Your task to perform on an android device: toggle wifi Image 0: 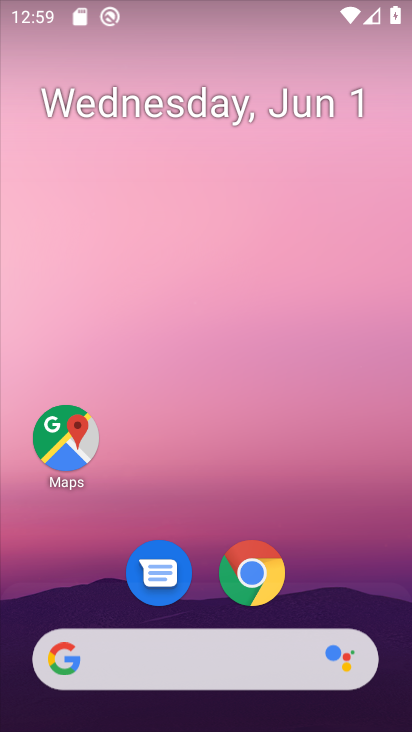
Step 0: drag from (152, 351) to (105, 125)
Your task to perform on an android device: toggle wifi Image 1: 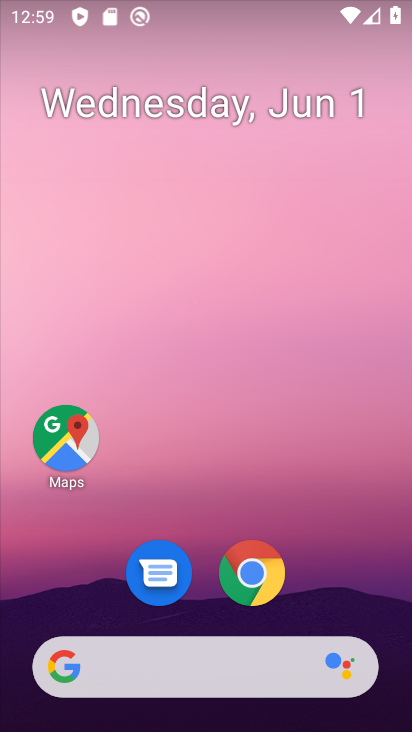
Step 1: drag from (214, 607) to (240, 99)
Your task to perform on an android device: toggle wifi Image 2: 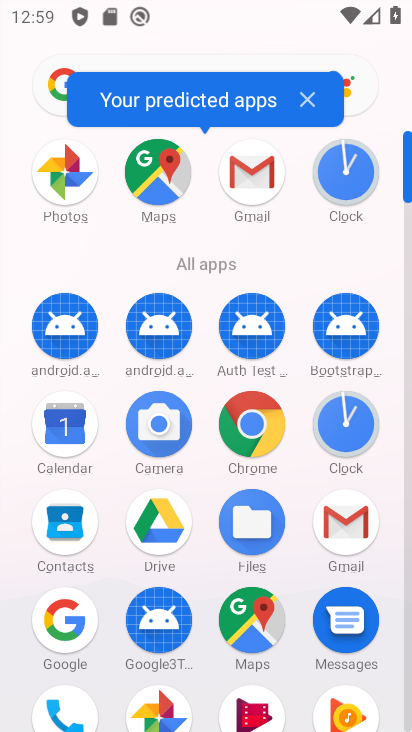
Step 2: drag from (211, 585) to (218, 188)
Your task to perform on an android device: toggle wifi Image 3: 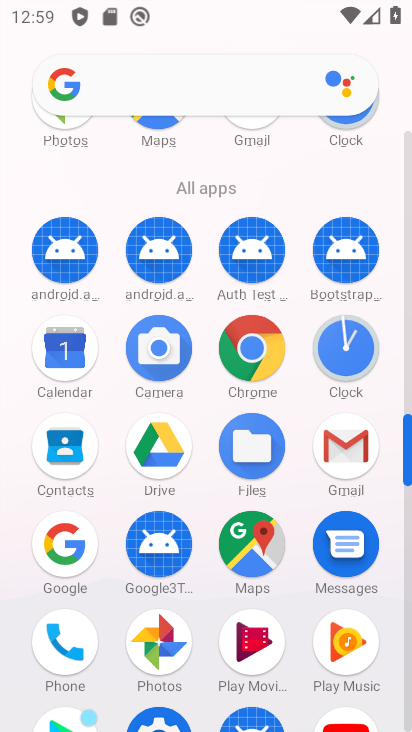
Step 3: click (166, 724)
Your task to perform on an android device: toggle wifi Image 4: 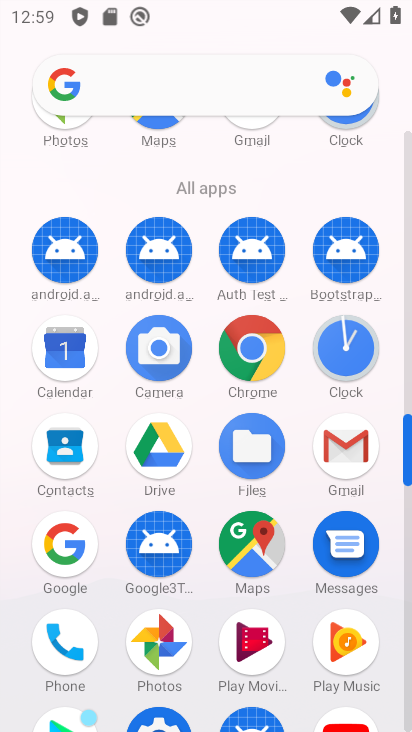
Step 4: click (166, 724)
Your task to perform on an android device: toggle wifi Image 5: 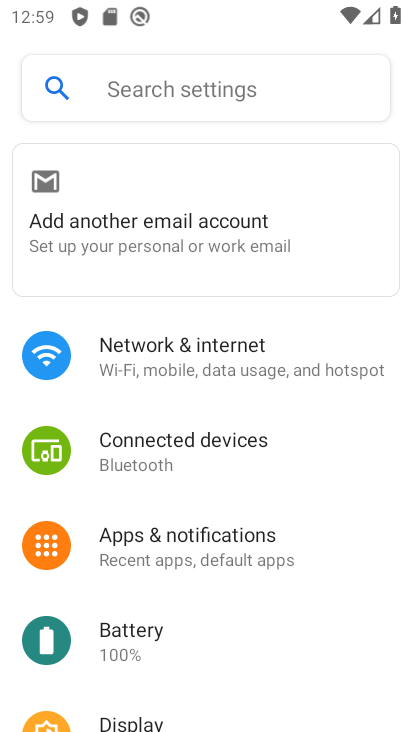
Step 5: click (151, 343)
Your task to perform on an android device: toggle wifi Image 6: 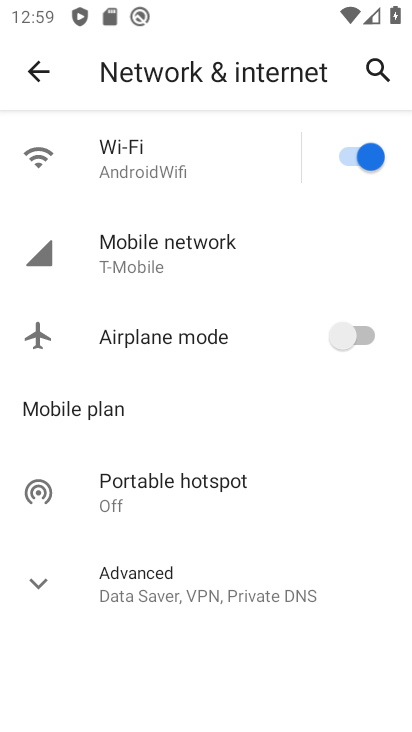
Step 6: click (149, 197)
Your task to perform on an android device: toggle wifi Image 7: 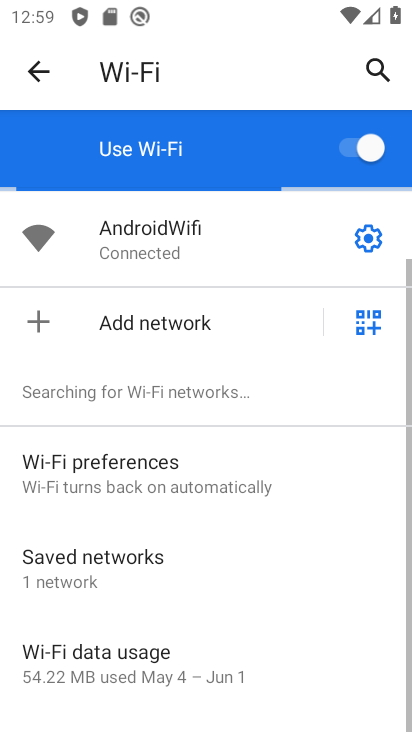
Step 7: click (347, 151)
Your task to perform on an android device: toggle wifi Image 8: 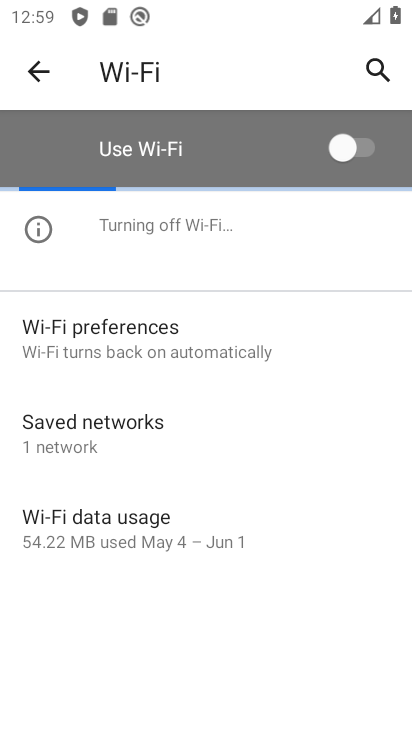
Step 8: task complete